Your task to perform on an android device: Check the news Image 0: 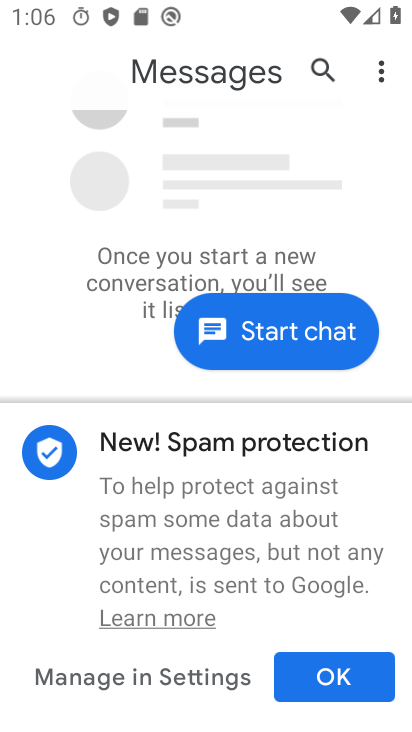
Step 0: press back button
Your task to perform on an android device: Check the news Image 1: 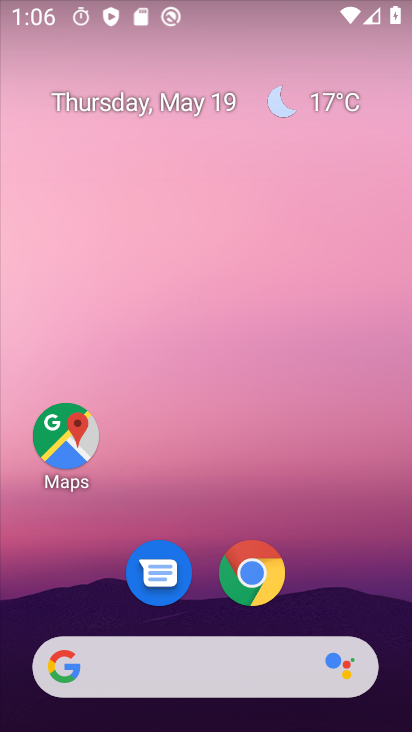
Step 1: click (175, 665)
Your task to perform on an android device: Check the news Image 2: 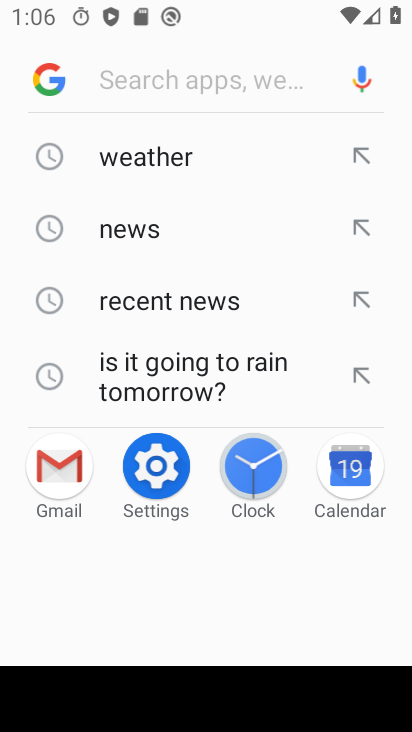
Step 2: click (136, 225)
Your task to perform on an android device: Check the news Image 3: 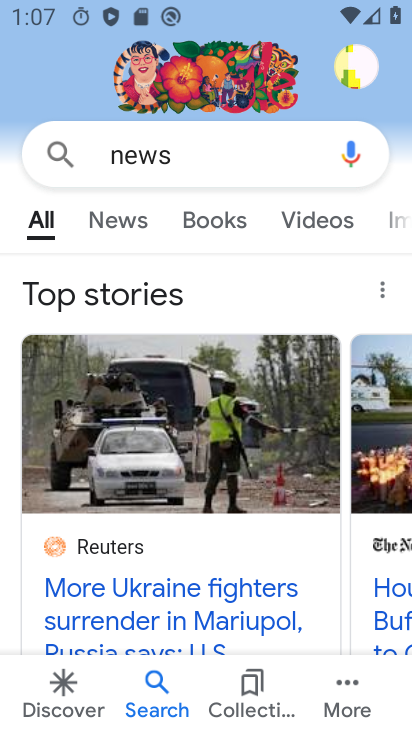
Step 3: task complete